Your task to perform on an android device: check the backup settings in the google photos Image 0: 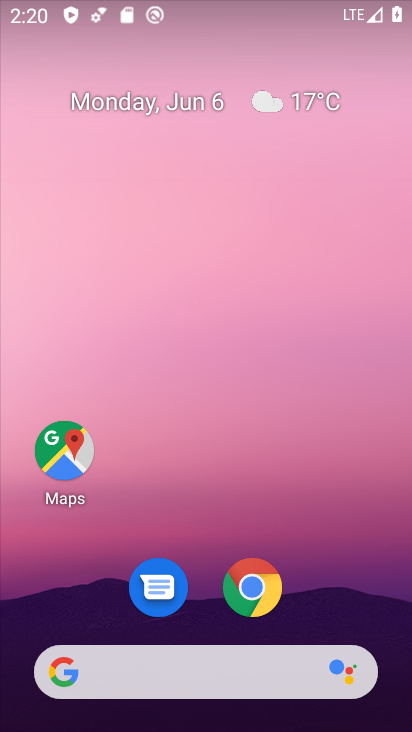
Step 0: drag from (326, 614) to (205, 52)
Your task to perform on an android device: check the backup settings in the google photos Image 1: 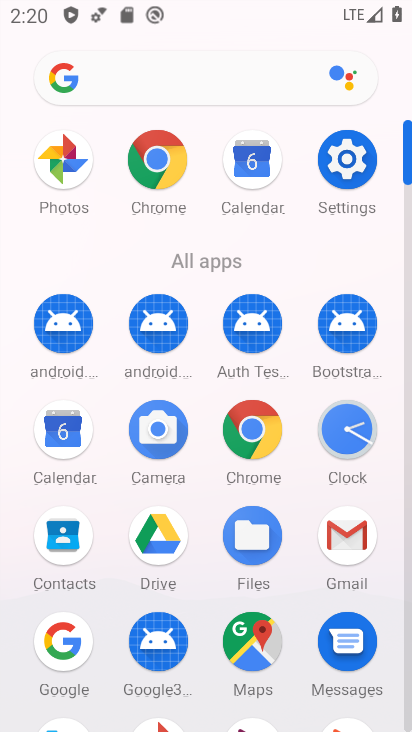
Step 1: drag from (7, 540) to (8, 229)
Your task to perform on an android device: check the backup settings in the google photos Image 2: 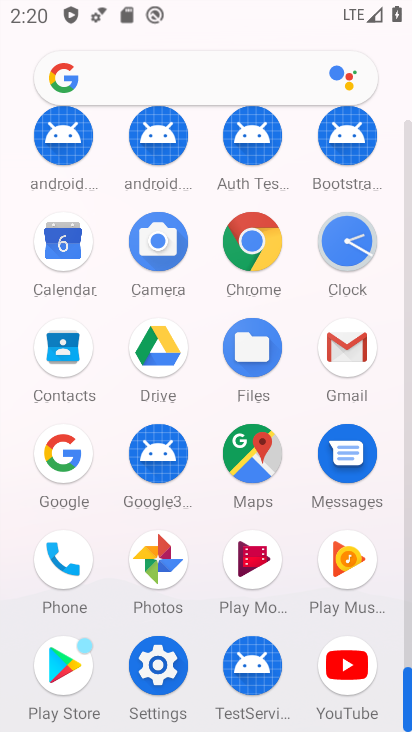
Step 2: click (154, 559)
Your task to perform on an android device: check the backup settings in the google photos Image 3: 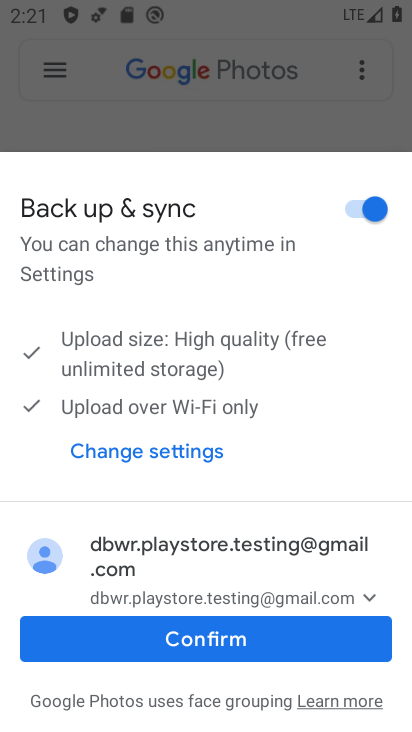
Step 3: click (144, 646)
Your task to perform on an android device: check the backup settings in the google photos Image 4: 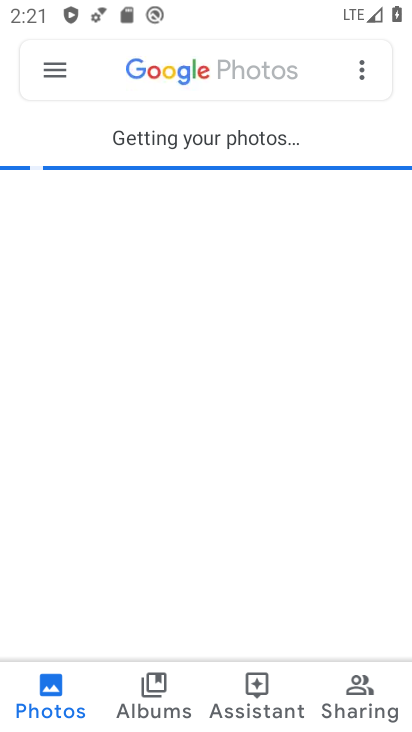
Step 4: click (59, 66)
Your task to perform on an android device: check the backup settings in the google photos Image 5: 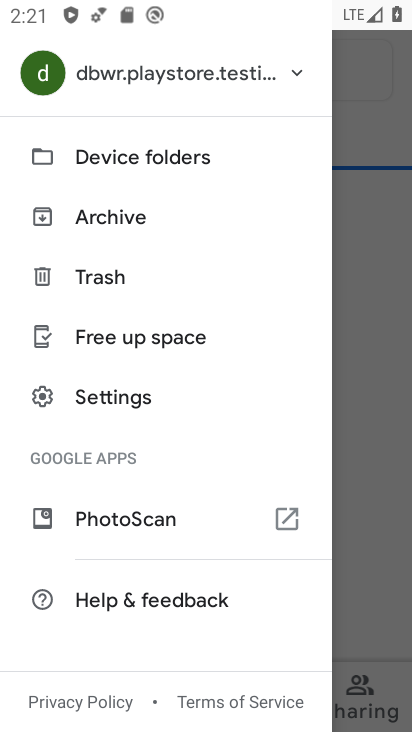
Step 5: click (96, 384)
Your task to perform on an android device: check the backup settings in the google photos Image 6: 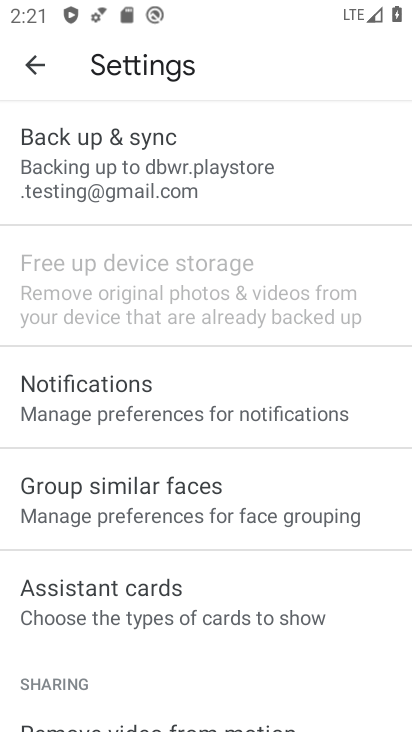
Step 6: click (148, 168)
Your task to perform on an android device: check the backup settings in the google photos Image 7: 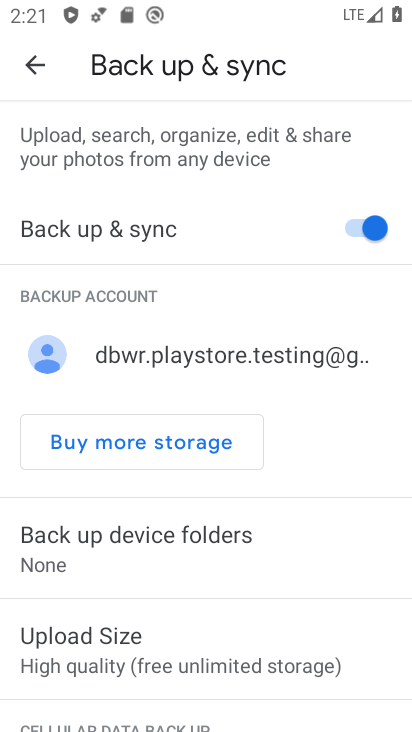
Step 7: task complete